Your task to perform on an android device: What is the news today? Image 0: 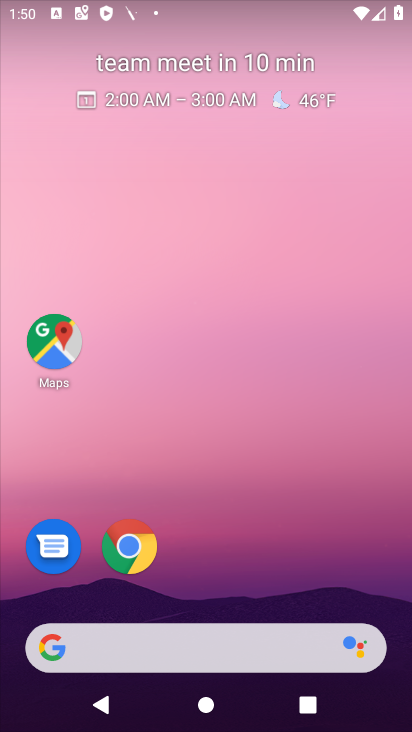
Step 0: drag from (9, 248) to (411, 294)
Your task to perform on an android device: What is the news today? Image 1: 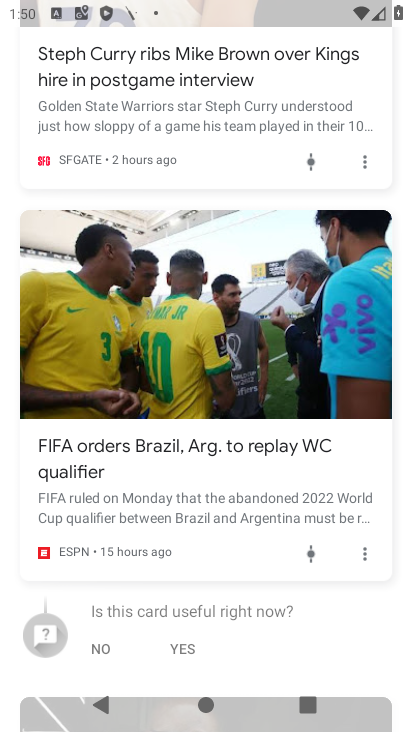
Step 1: task complete